Your task to perform on an android device: change the clock style Image 0: 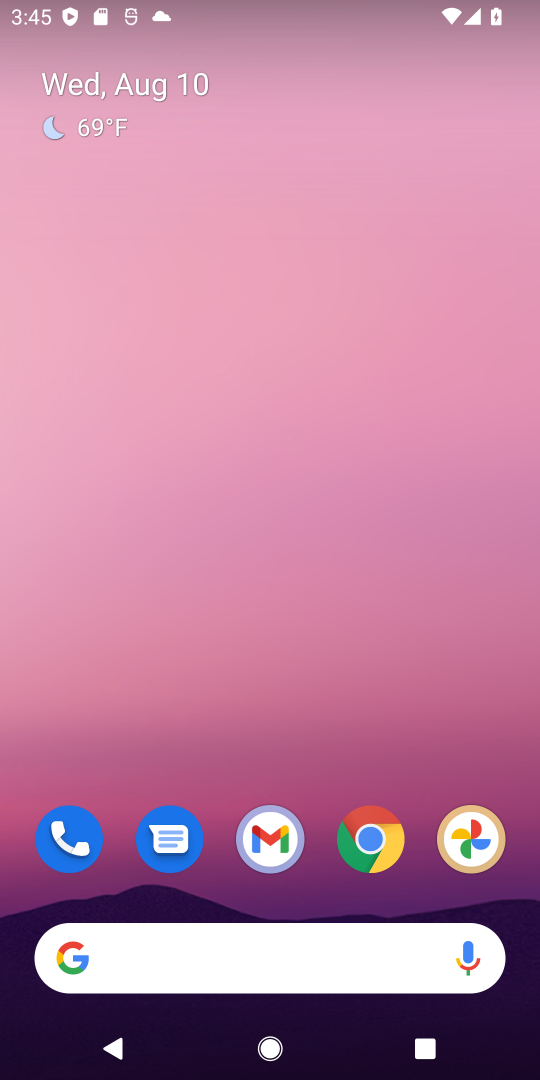
Step 0: drag from (235, 752) to (202, 0)
Your task to perform on an android device: change the clock style Image 1: 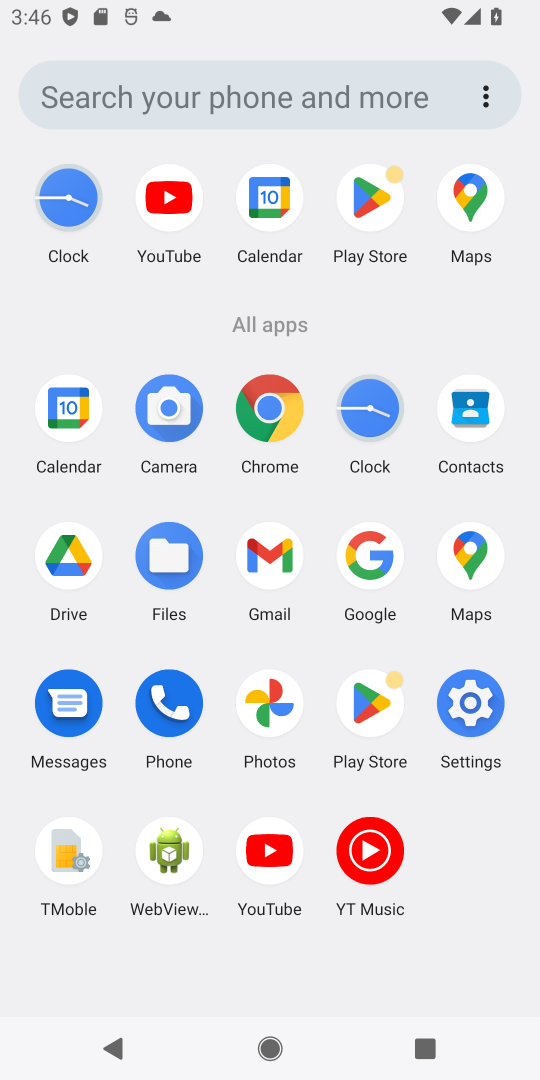
Step 1: click (84, 195)
Your task to perform on an android device: change the clock style Image 2: 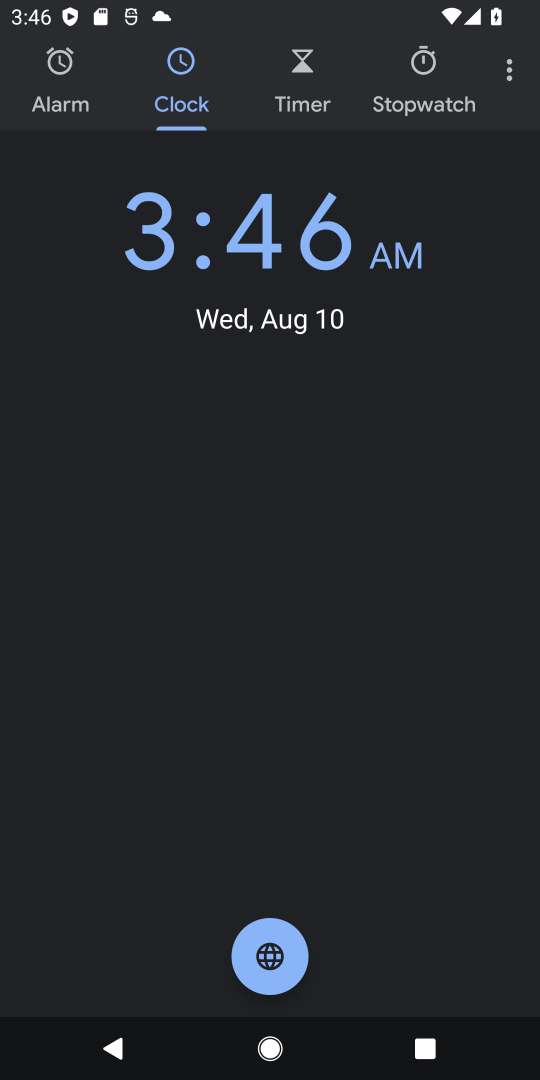
Step 2: click (505, 70)
Your task to perform on an android device: change the clock style Image 3: 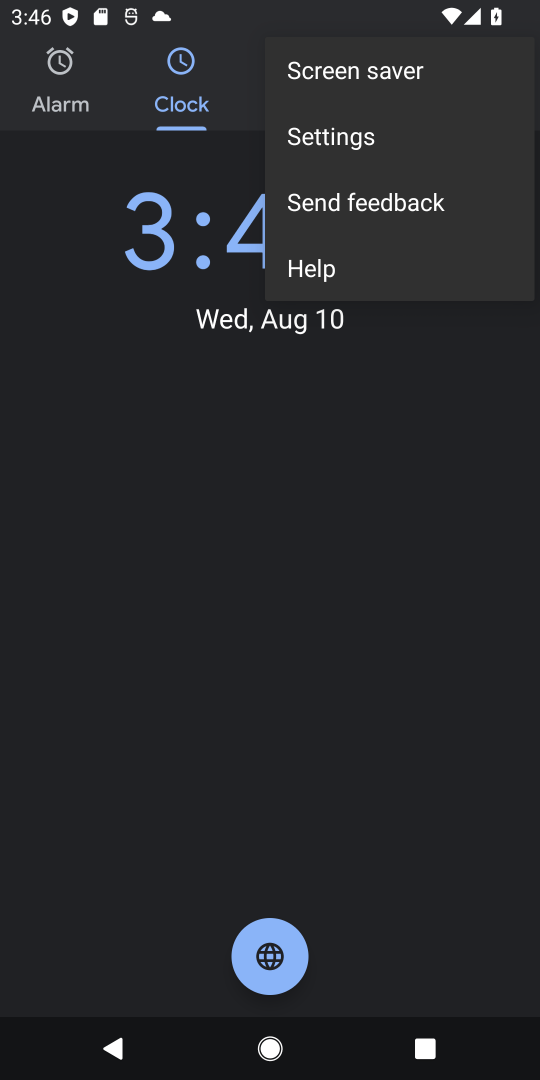
Step 3: click (412, 139)
Your task to perform on an android device: change the clock style Image 4: 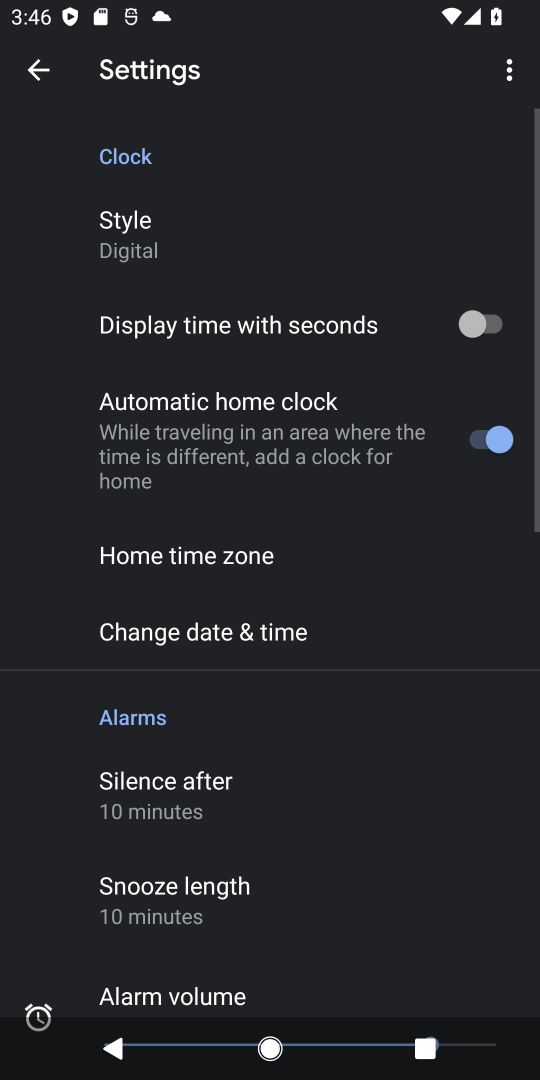
Step 4: click (107, 244)
Your task to perform on an android device: change the clock style Image 5: 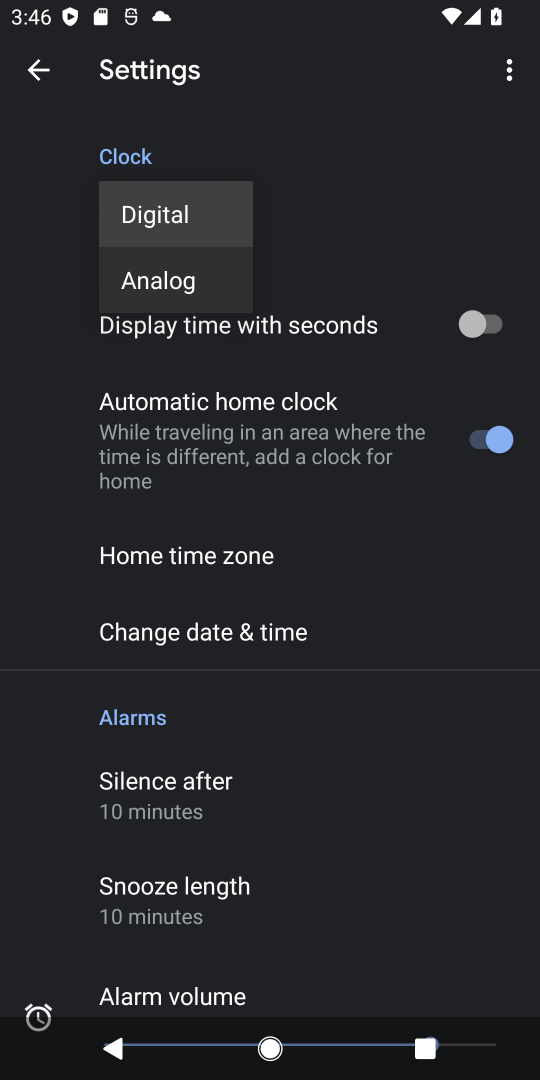
Step 5: click (145, 285)
Your task to perform on an android device: change the clock style Image 6: 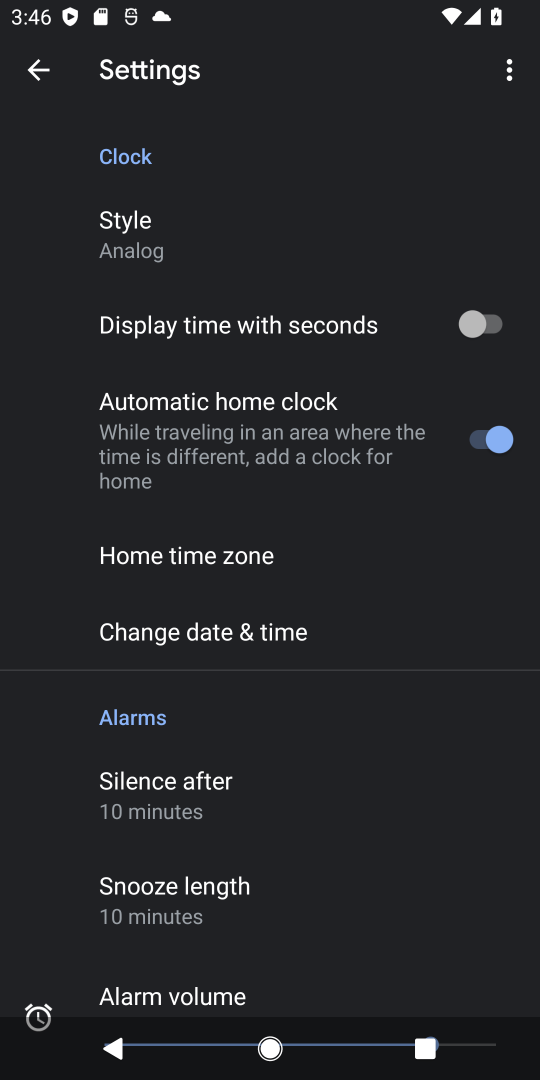
Step 6: click (33, 71)
Your task to perform on an android device: change the clock style Image 7: 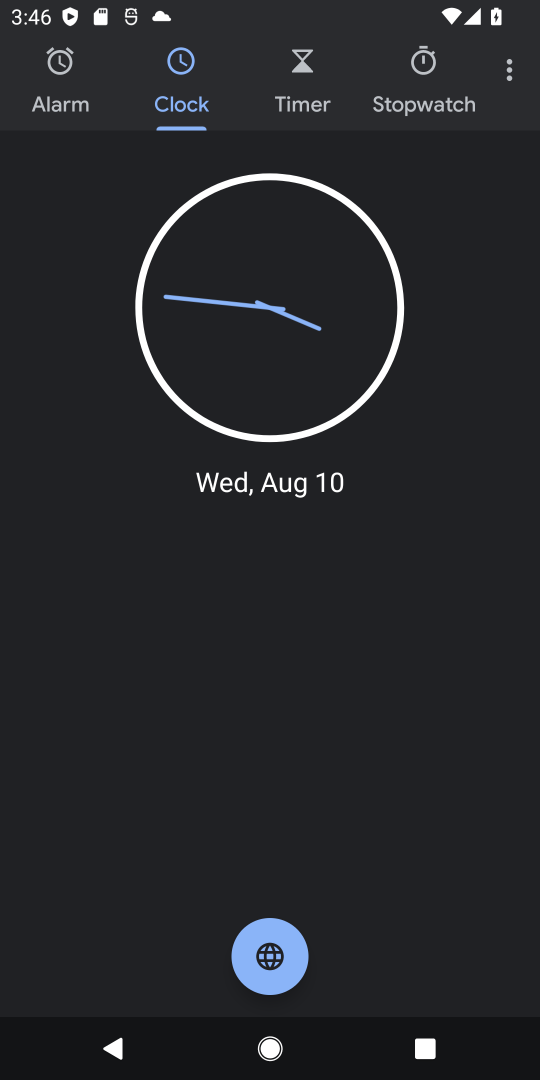
Step 7: task complete